Your task to perform on an android device: change the clock display to digital Image 0: 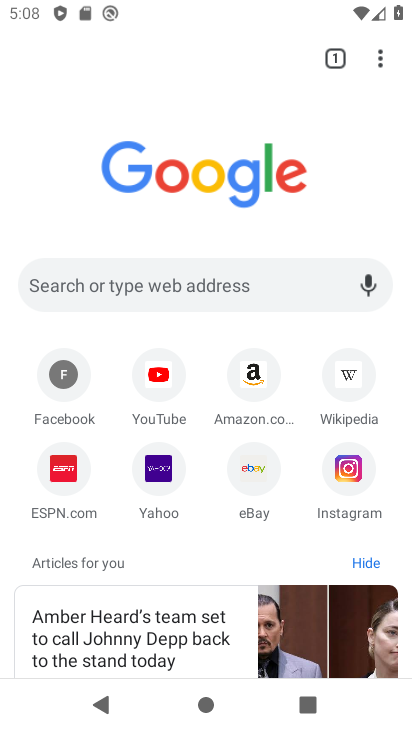
Step 0: press home button
Your task to perform on an android device: change the clock display to digital Image 1: 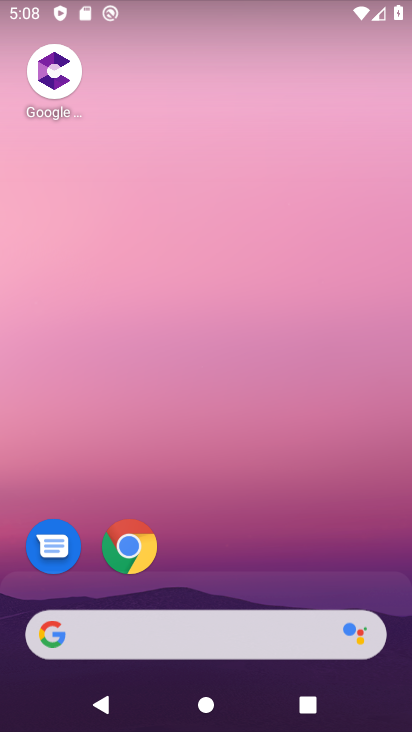
Step 1: drag from (260, 605) to (288, 104)
Your task to perform on an android device: change the clock display to digital Image 2: 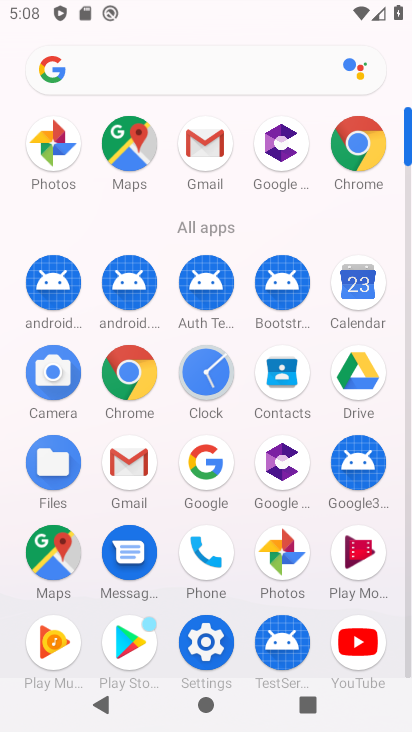
Step 2: click (207, 369)
Your task to perform on an android device: change the clock display to digital Image 3: 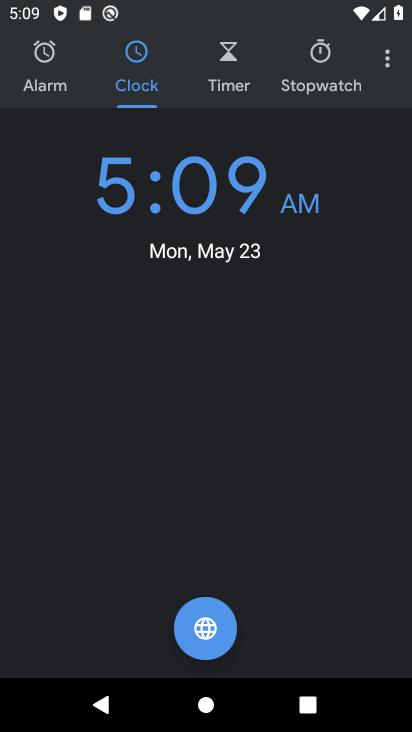
Step 3: click (392, 63)
Your task to perform on an android device: change the clock display to digital Image 4: 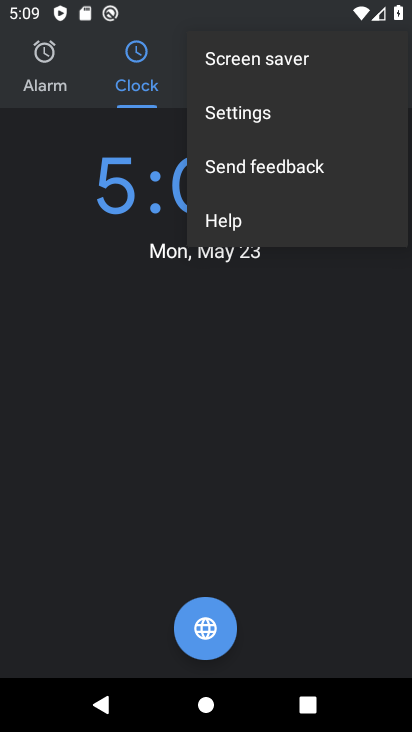
Step 4: click (262, 117)
Your task to perform on an android device: change the clock display to digital Image 5: 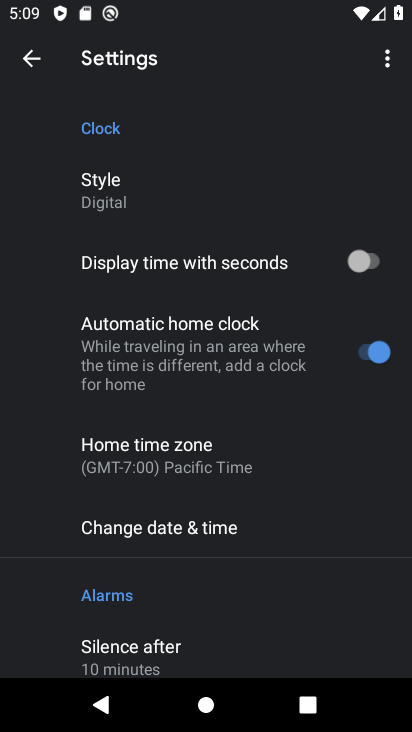
Step 5: click (133, 191)
Your task to perform on an android device: change the clock display to digital Image 6: 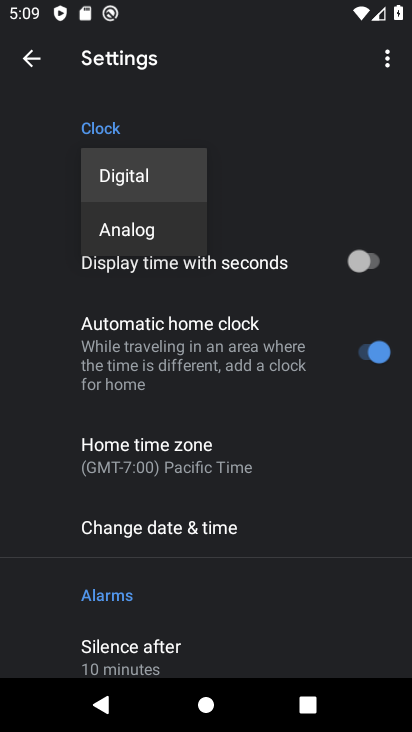
Step 6: click (136, 227)
Your task to perform on an android device: change the clock display to digital Image 7: 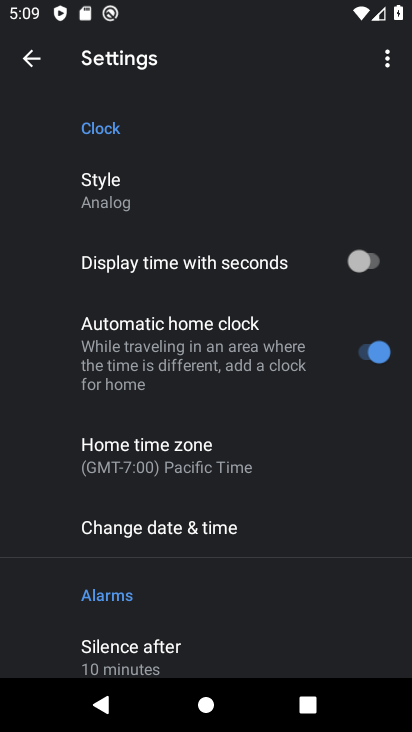
Step 7: task complete